Your task to perform on an android device: Open the map Image 0: 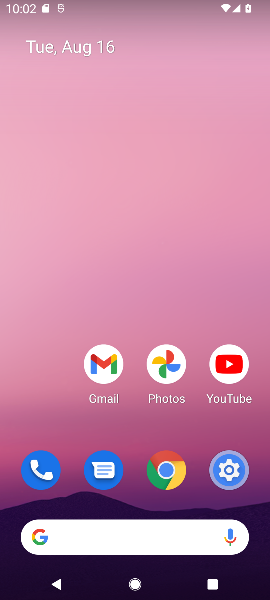
Step 0: drag from (68, 380) to (100, 17)
Your task to perform on an android device: Open the map Image 1: 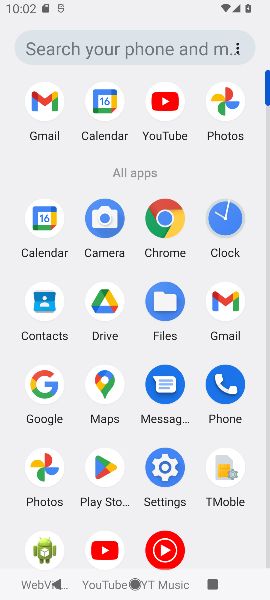
Step 1: click (105, 373)
Your task to perform on an android device: Open the map Image 2: 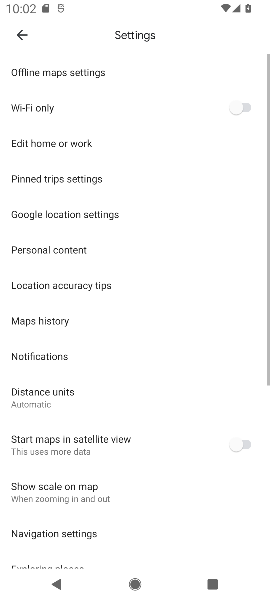
Step 2: drag from (153, 251) to (155, 408)
Your task to perform on an android device: Open the map Image 3: 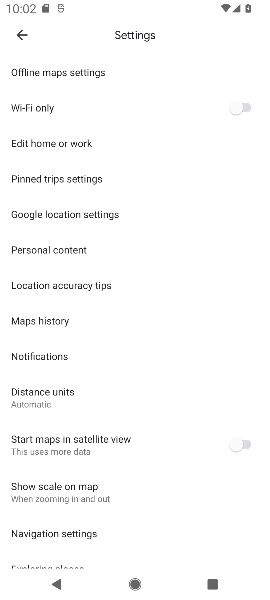
Step 3: click (24, 32)
Your task to perform on an android device: Open the map Image 4: 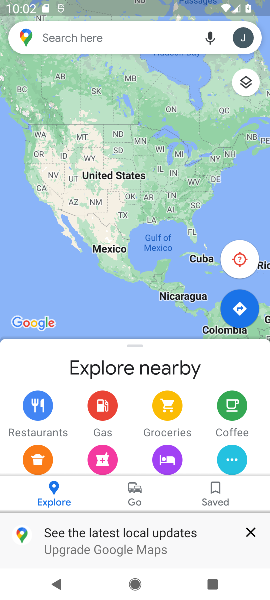
Step 4: task complete